Your task to perform on an android device: Do I have any events today? Image 0: 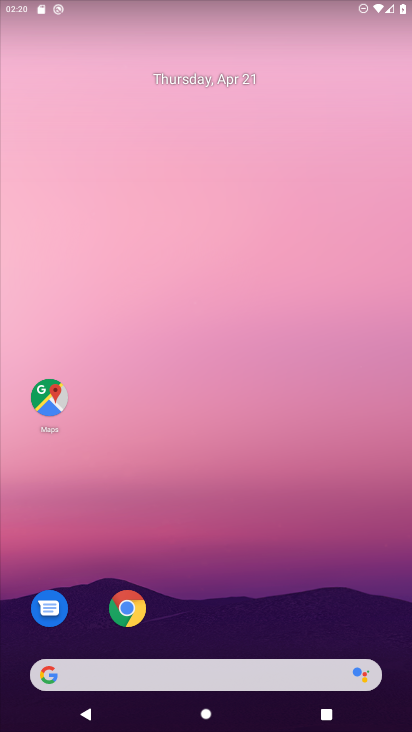
Step 0: drag from (276, 592) to (271, 207)
Your task to perform on an android device: Do I have any events today? Image 1: 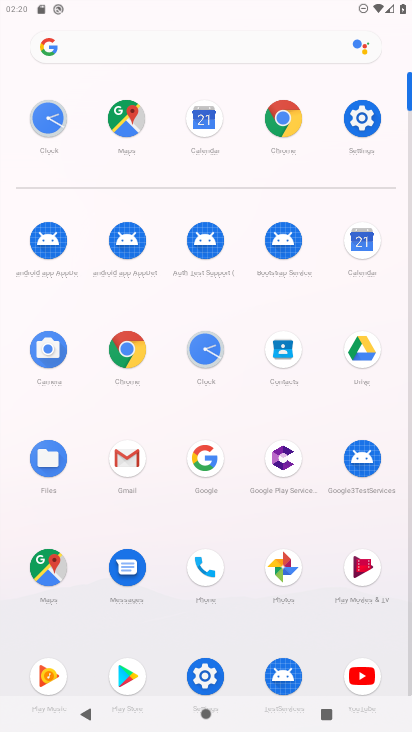
Step 1: click (123, 350)
Your task to perform on an android device: Do I have any events today? Image 2: 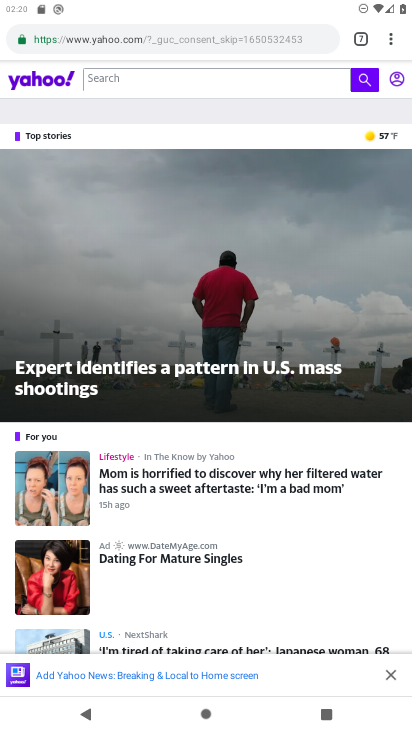
Step 2: press home button
Your task to perform on an android device: Do I have any events today? Image 3: 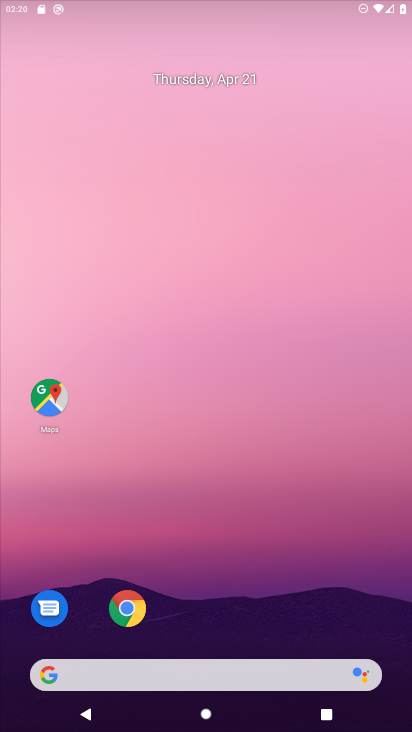
Step 3: drag from (222, 496) to (253, 182)
Your task to perform on an android device: Do I have any events today? Image 4: 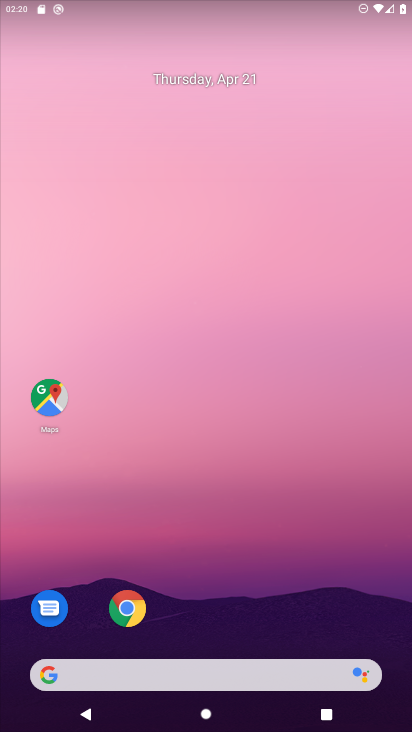
Step 4: drag from (223, 621) to (271, 226)
Your task to perform on an android device: Do I have any events today? Image 5: 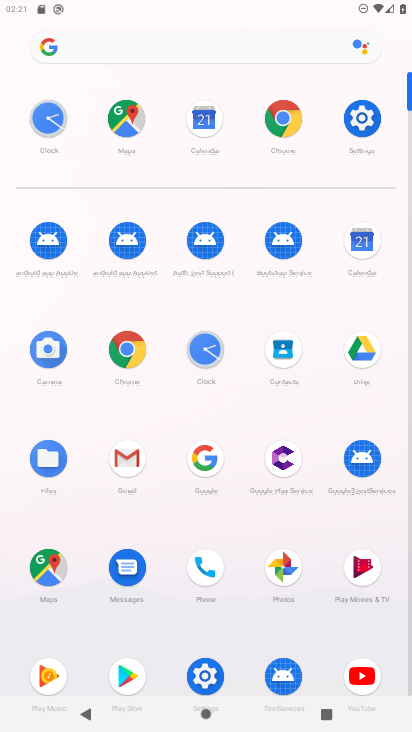
Step 5: click (367, 236)
Your task to perform on an android device: Do I have any events today? Image 6: 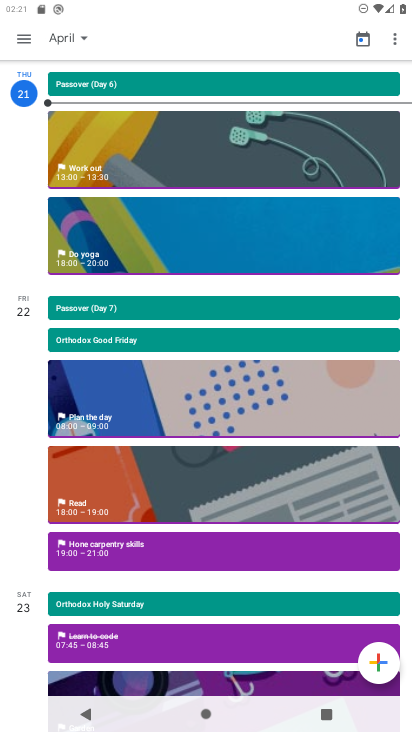
Step 6: click (97, 231)
Your task to perform on an android device: Do I have any events today? Image 7: 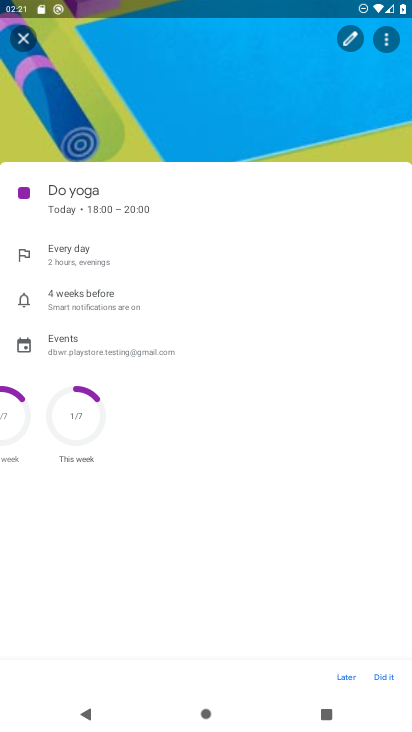
Step 7: click (85, 250)
Your task to perform on an android device: Do I have any events today? Image 8: 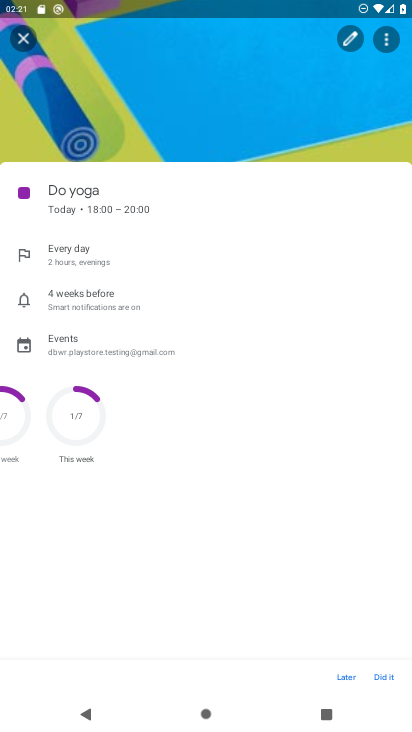
Step 8: drag from (17, 36) to (192, 334)
Your task to perform on an android device: Do I have any events today? Image 9: 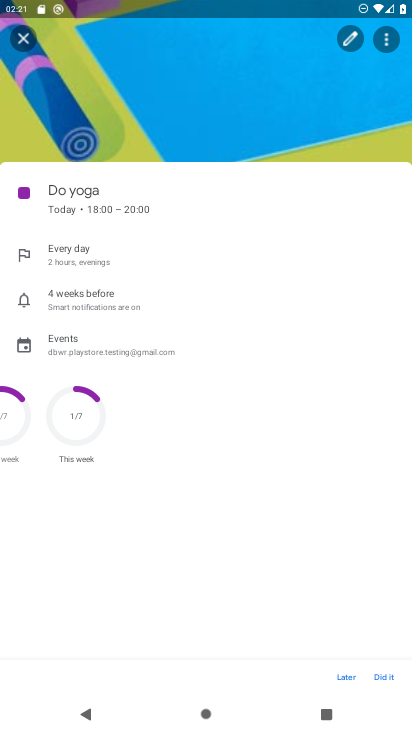
Step 9: click (88, 342)
Your task to perform on an android device: Do I have any events today? Image 10: 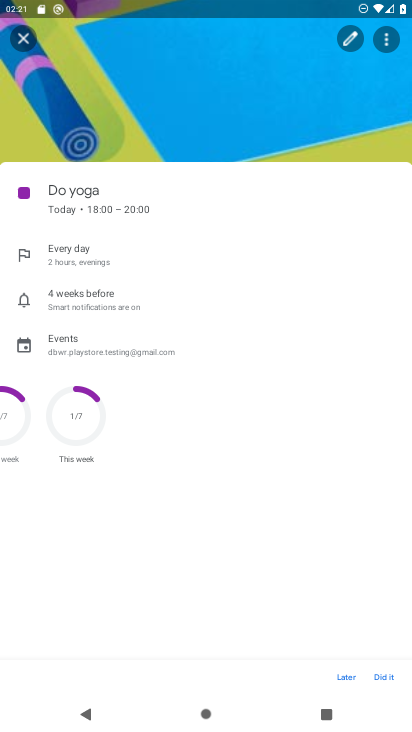
Step 10: task complete